Your task to perform on an android device: Open settings Image 0: 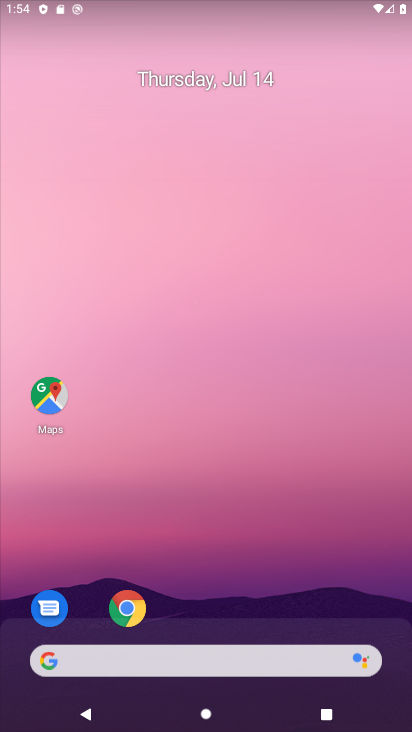
Step 0: drag from (289, 608) to (330, 13)
Your task to perform on an android device: Open settings Image 1: 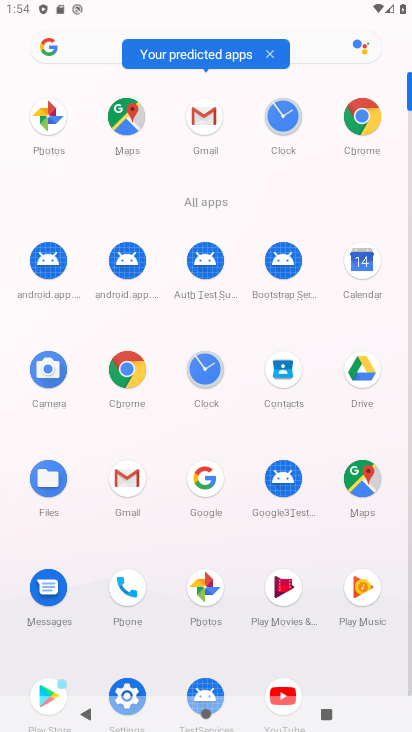
Step 1: click (127, 686)
Your task to perform on an android device: Open settings Image 2: 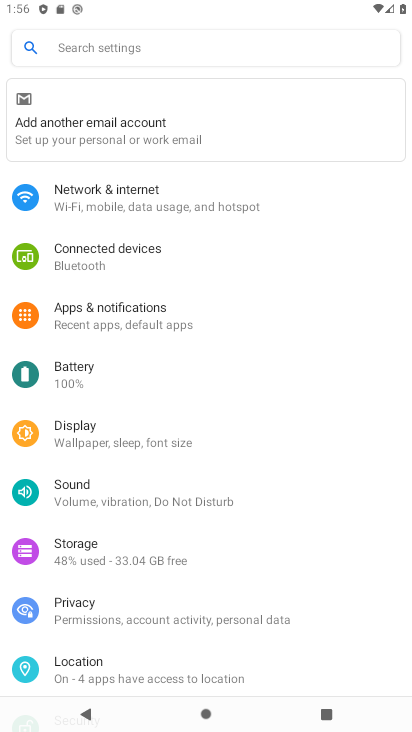
Step 2: task complete